Your task to perform on an android device: find which apps use the phone's location Image 0: 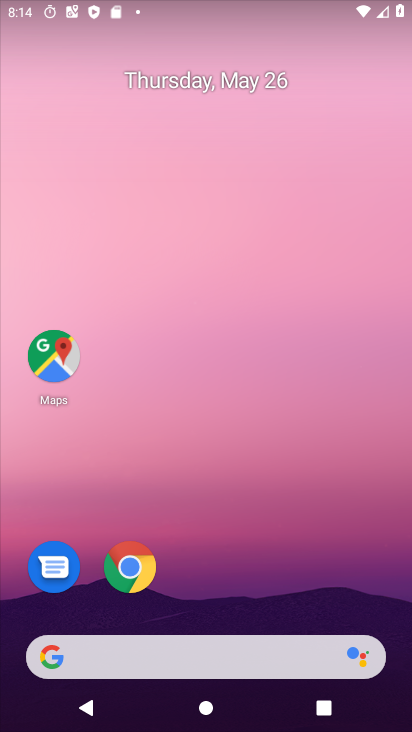
Step 0: drag from (197, 629) to (317, 47)
Your task to perform on an android device: find which apps use the phone's location Image 1: 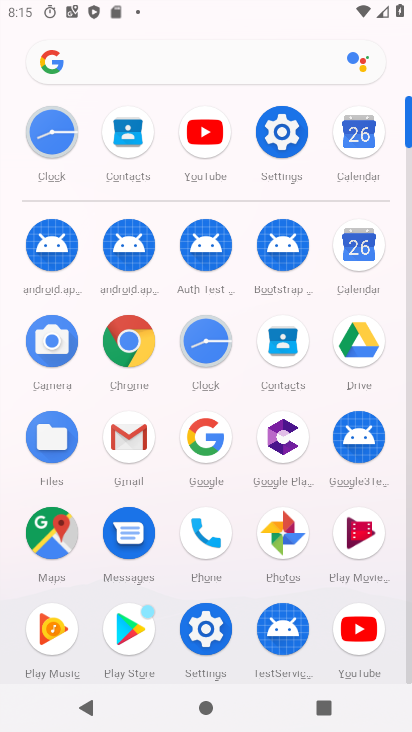
Step 1: click (292, 134)
Your task to perform on an android device: find which apps use the phone's location Image 2: 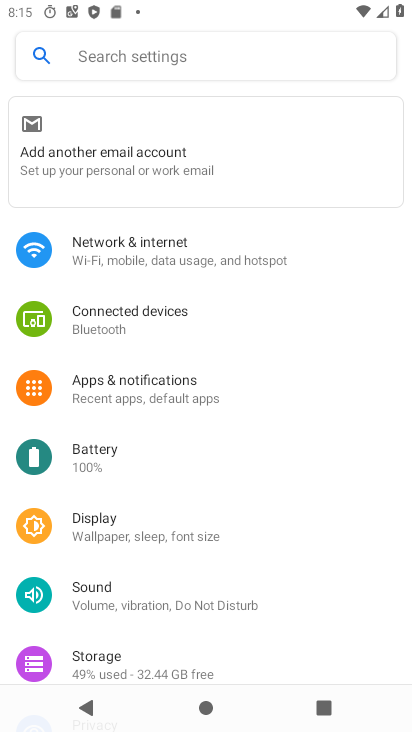
Step 2: drag from (253, 624) to (353, 157)
Your task to perform on an android device: find which apps use the phone's location Image 3: 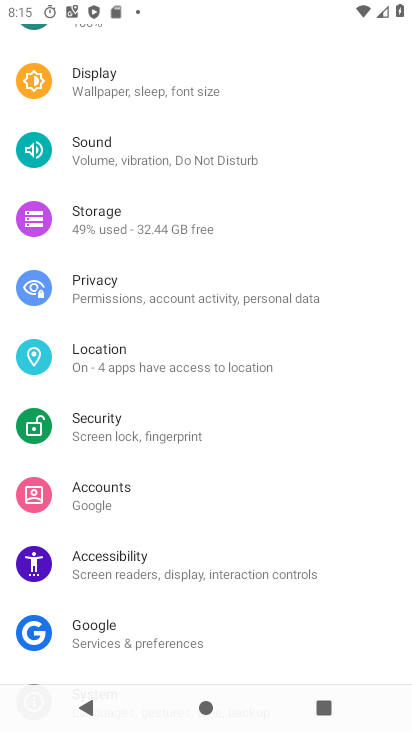
Step 3: click (141, 360)
Your task to perform on an android device: find which apps use the phone's location Image 4: 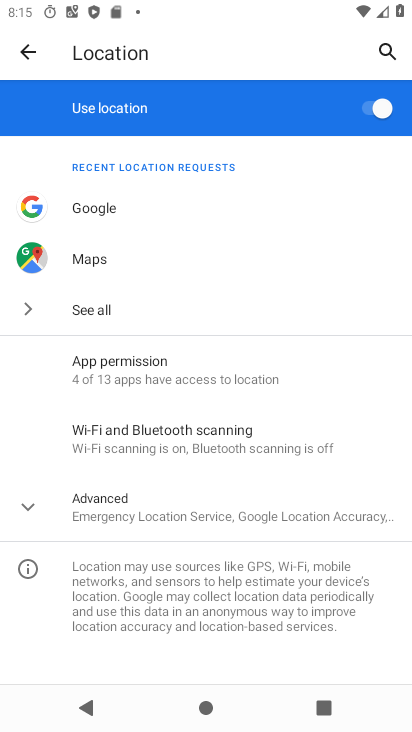
Step 4: click (134, 361)
Your task to perform on an android device: find which apps use the phone's location Image 5: 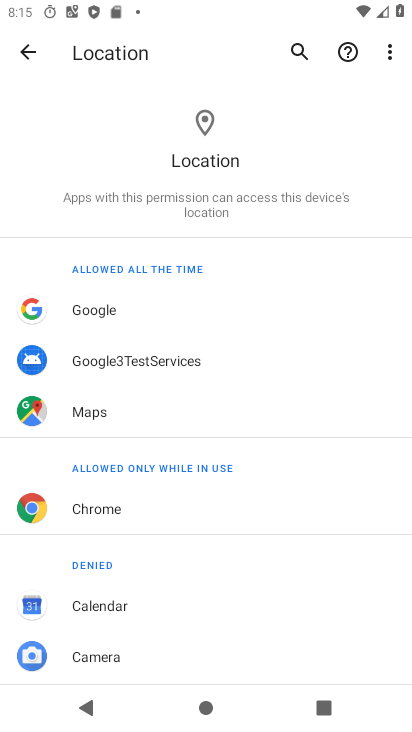
Step 5: drag from (204, 658) to (298, 173)
Your task to perform on an android device: find which apps use the phone's location Image 6: 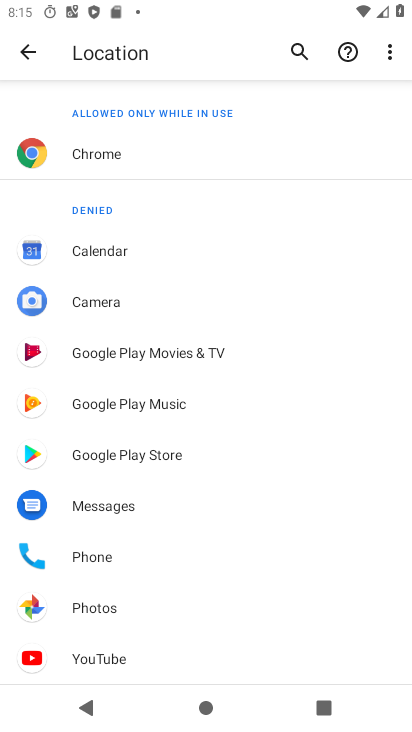
Step 6: click (115, 553)
Your task to perform on an android device: find which apps use the phone's location Image 7: 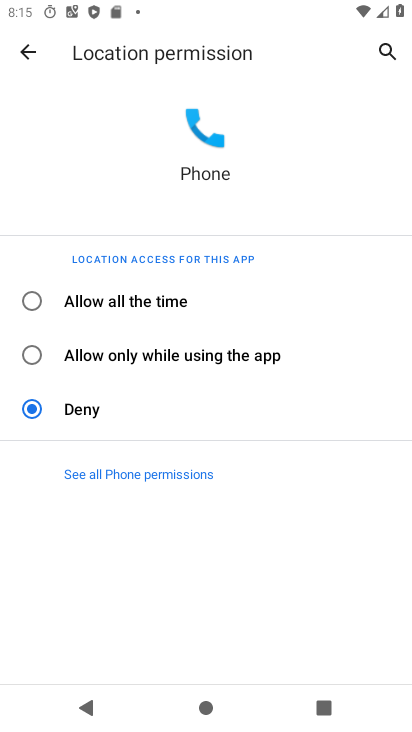
Step 7: task complete